Your task to perform on an android device: turn on the 24-hour format for clock Image 0: 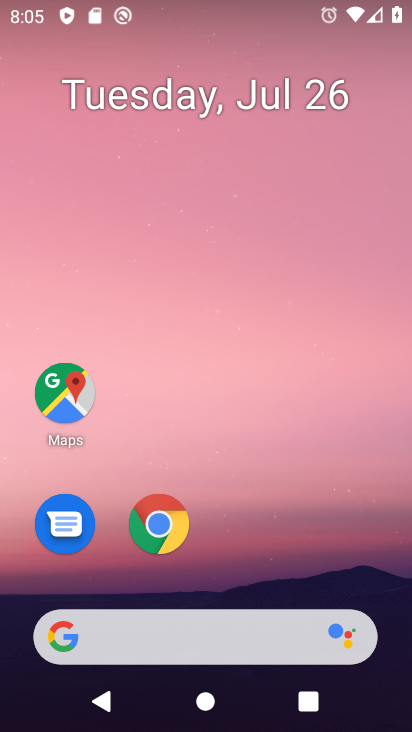
Step 0: drag from (298, 243) to (315, 18)
Your task to perform on an android device: turn on the 24-hour format for clock Image 1: 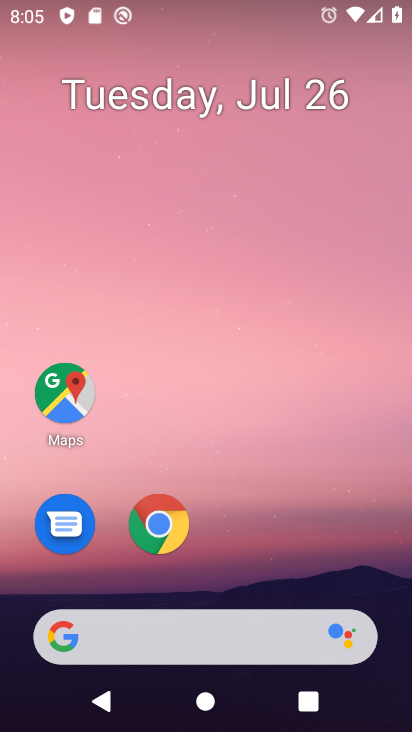
Step 1: drag from (241, 532) to (276, 0)
Your task to perform on an android device: turn on the 24-hour format for clock Image 2: 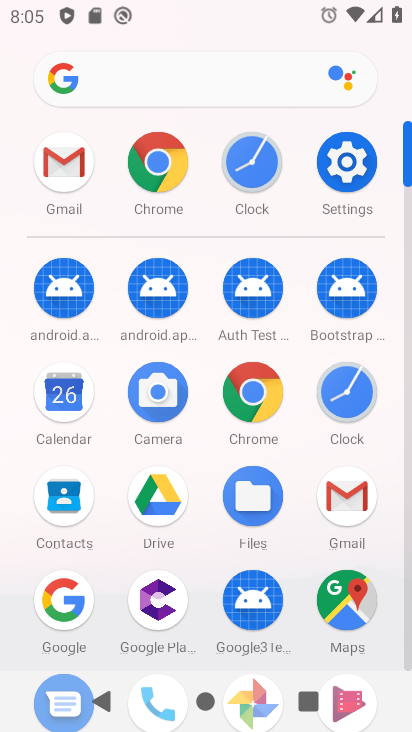
Step 2: click (260, 163)
Your task to perform on an android device: turn on the 24-hour format for clock Image 3: 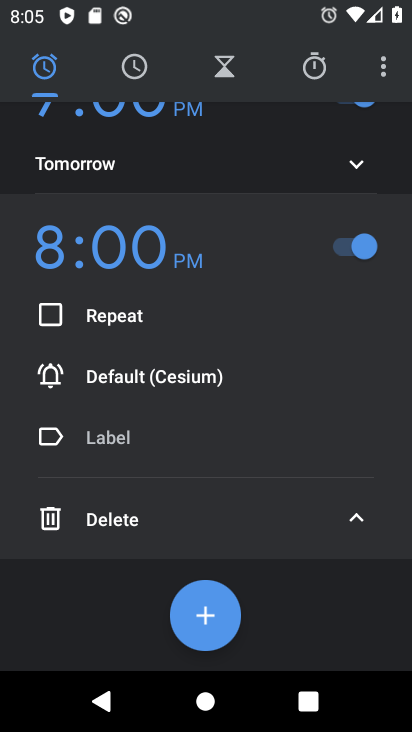
Step 3: click (386, 73)
Your task to perform on an android device: turn on the 24-hour format for clock Image 4: 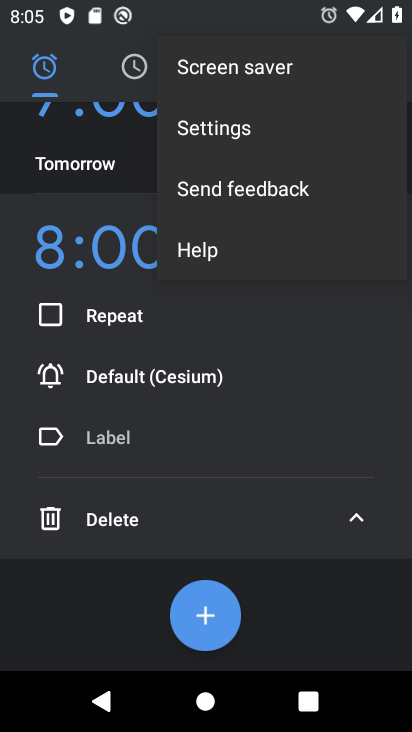
Step 4: click (254, 126)
Your task to perform on an android device: turn on the 24-hour format for clock Image 5: 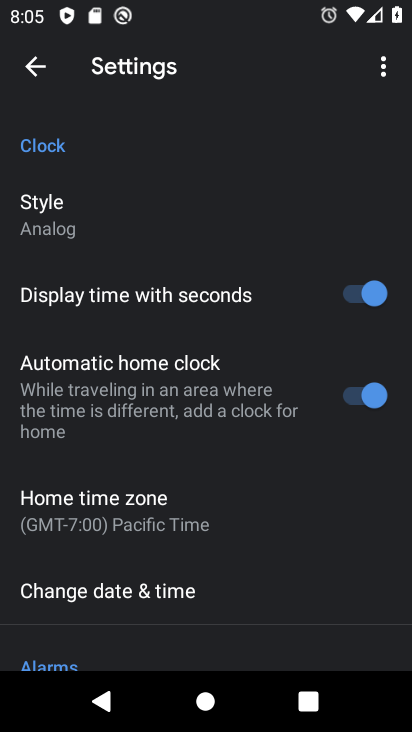
Step 5: click (209, 594)
Your task to perform on an android device: turn on the 24-hour format for clock Image 6: 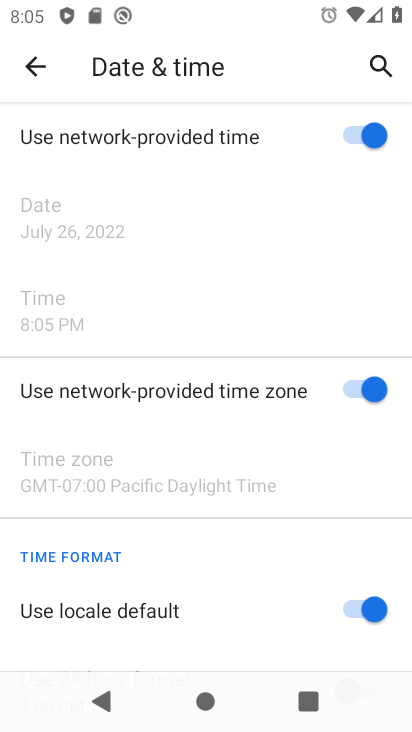
Step 6: drag from (273, 509) to (305, 270)
Your task to perform on an android device: turn on the 24-hour format for clock Image 7: 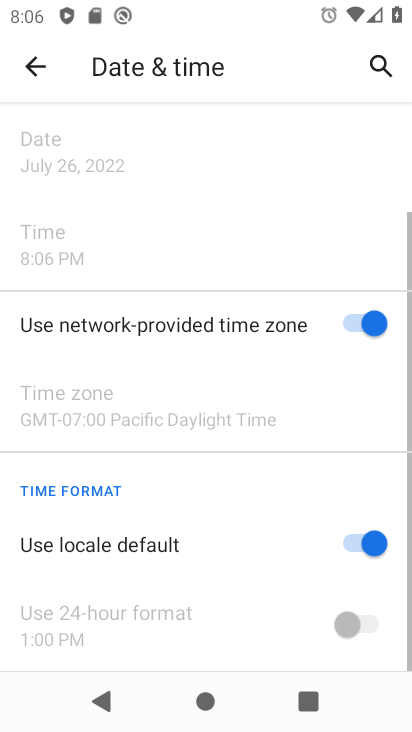
Step 7: click (360, 540)
Your task to perform on an android device: turn on the 24-hour format for clock Image 8: 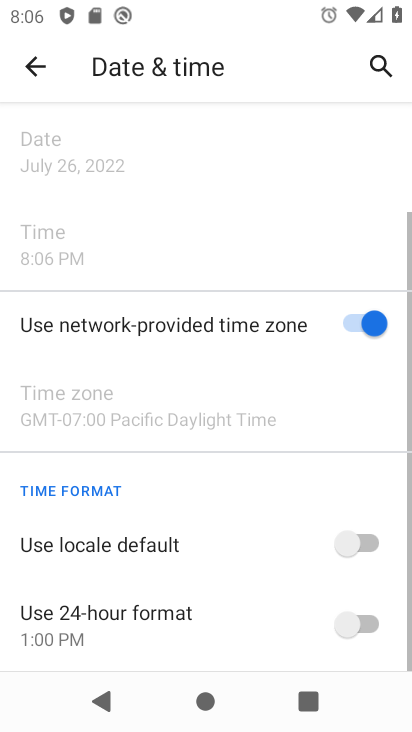
Step 8: click (367, 623)
Your task to perform on an android device: turn on the 24-hour format for clock Image 9: 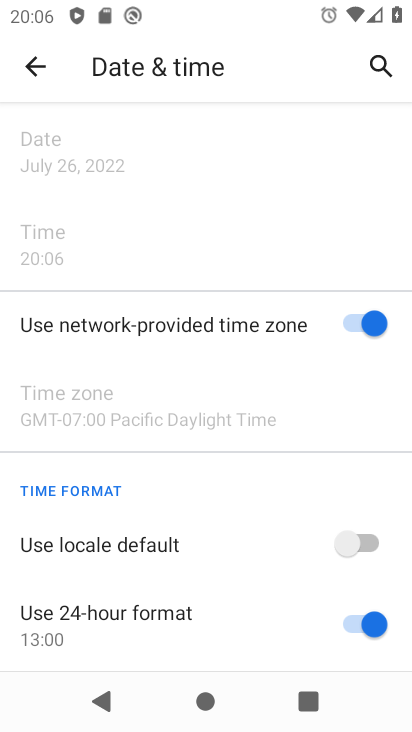
Step 9: task complete